Your task to perform on an android device: turn notification dots on Image 0: 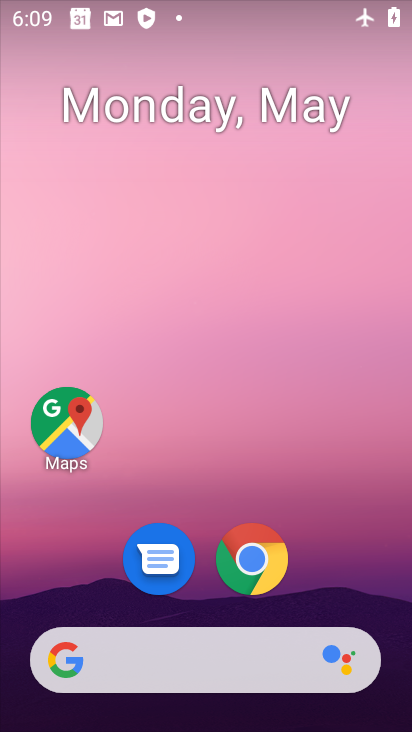
Step 0: drag from (330, 487) to (198, 51)
Your task to perform on an android device: turn notification dots on Image 1: 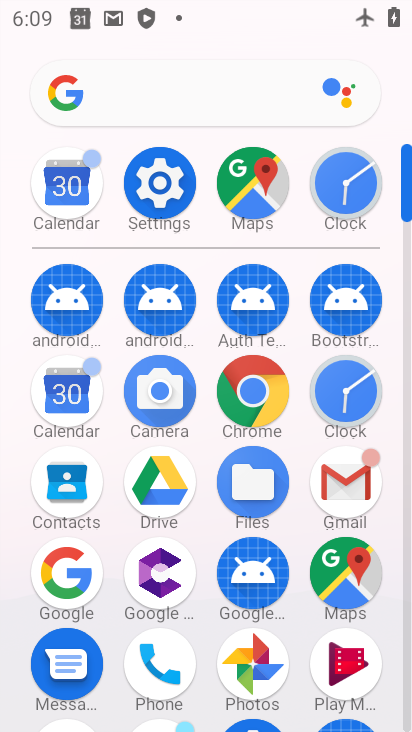
Step 1: click (156, 189)
Your task to perform on an android device: turn notification dots on Image 2: 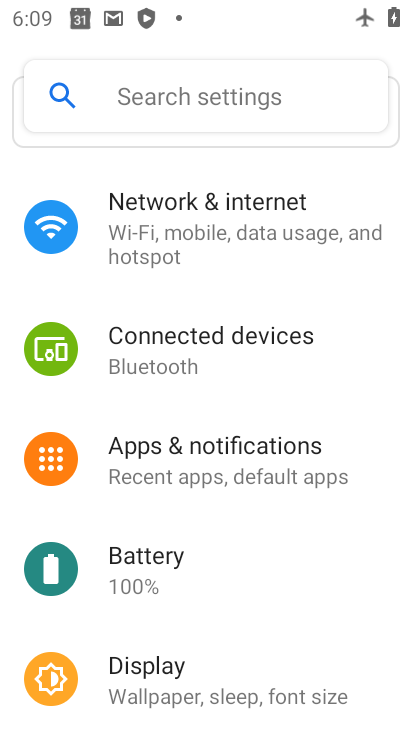
Step 2: click (209, 453)
Your task to perform on an android device: turn notification dots on Image 3: 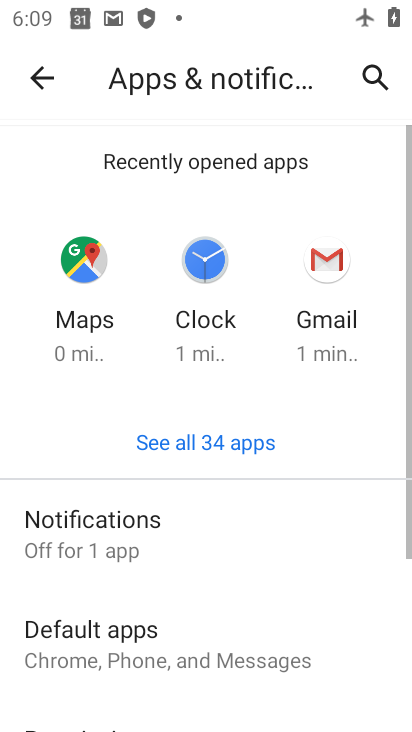
Step 3: click (141, 519)
Your task to perform on an android device: turn notification dots on Image 4: 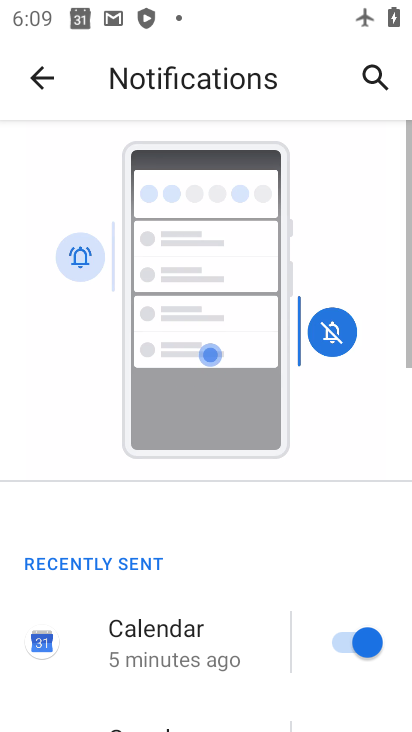
Step 4: drag from (228, 512) to (223, 139)
Your task to perform on an android device: turn notification dots on Image 5: 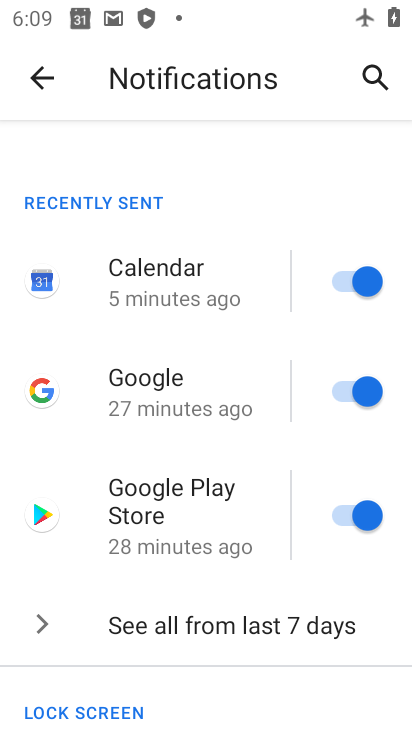
Step 5: drag from (267, 576) to (259, 269)
Your task to perform on an android device: turn notification dots on Image 6: 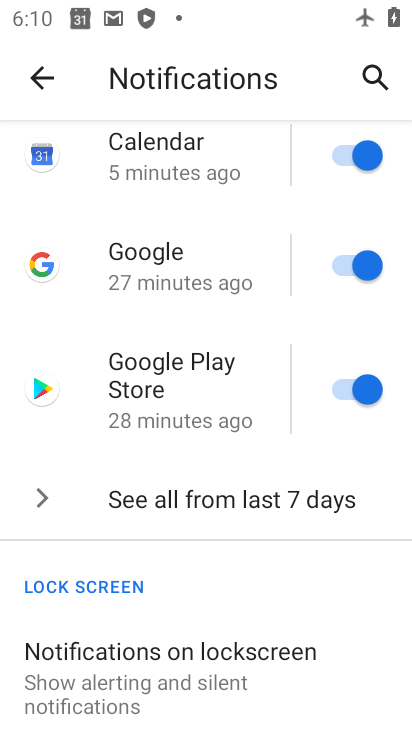
Step 6: drag from (209, 597) to (189, 136)
Your task to perform on an android device: turn notification dots on Image 7: 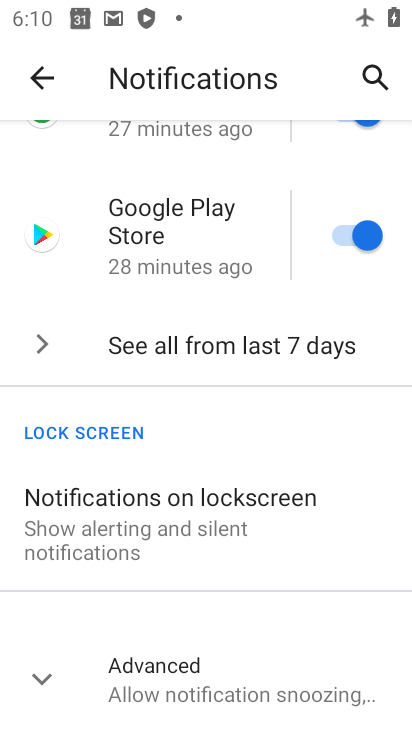
Step 7: click (102, 678)
Your task to perform on an android device: turn notification dots on Image 8: 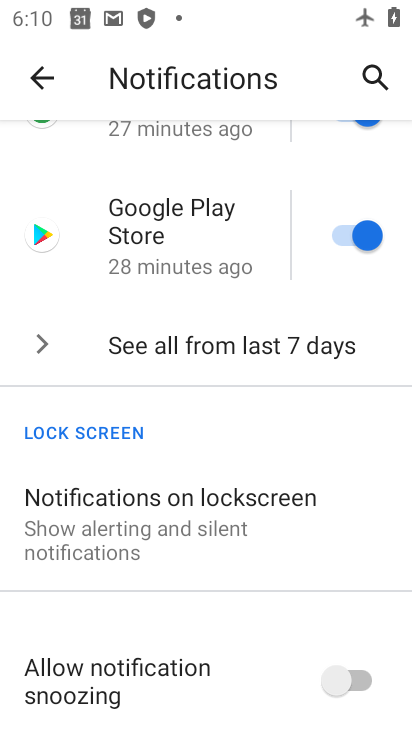
Step 8: task complete